Your task to perform on an android device: Do I have any events tomorrow? Image 0: 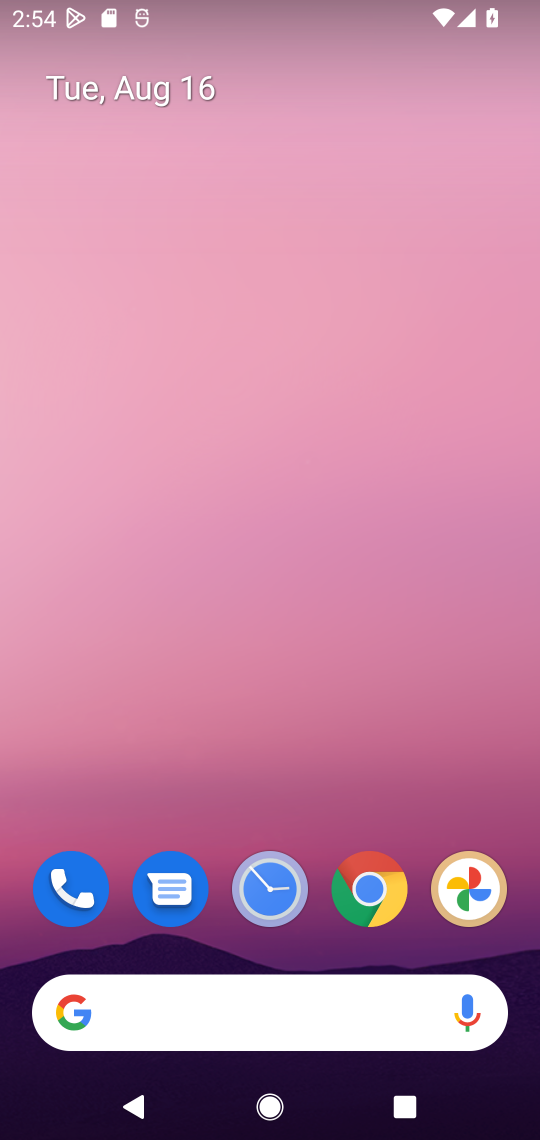
Step 0: drag from (379, 689) to (350, 22)
Your task to perform on an android device: Do I have any events tomorrow? Image 1: 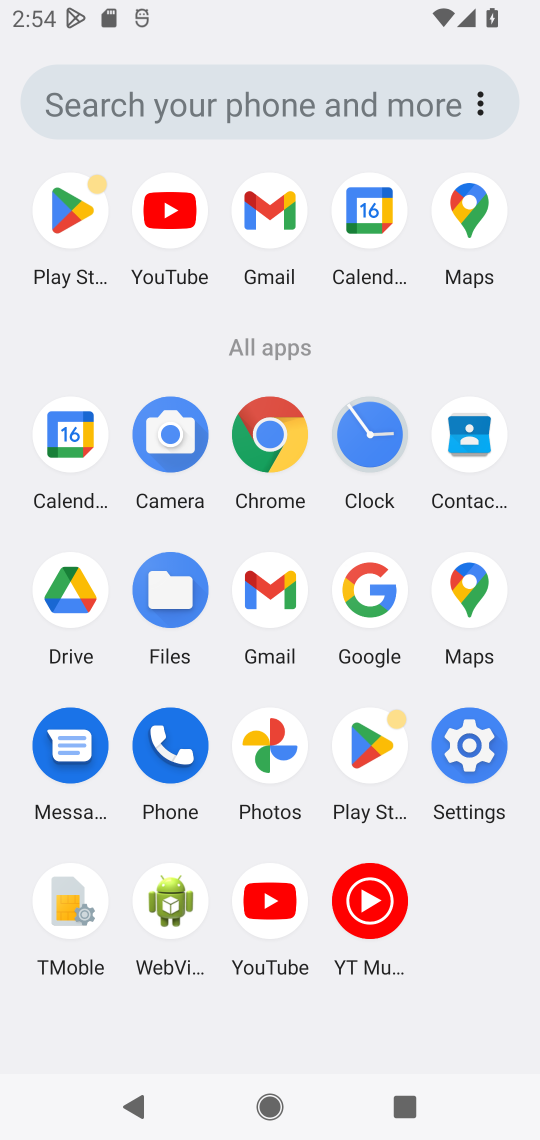
Step 1: click (358, 202)
Your task to perform on an android device: Do I have any events tomorrow? Image 2: 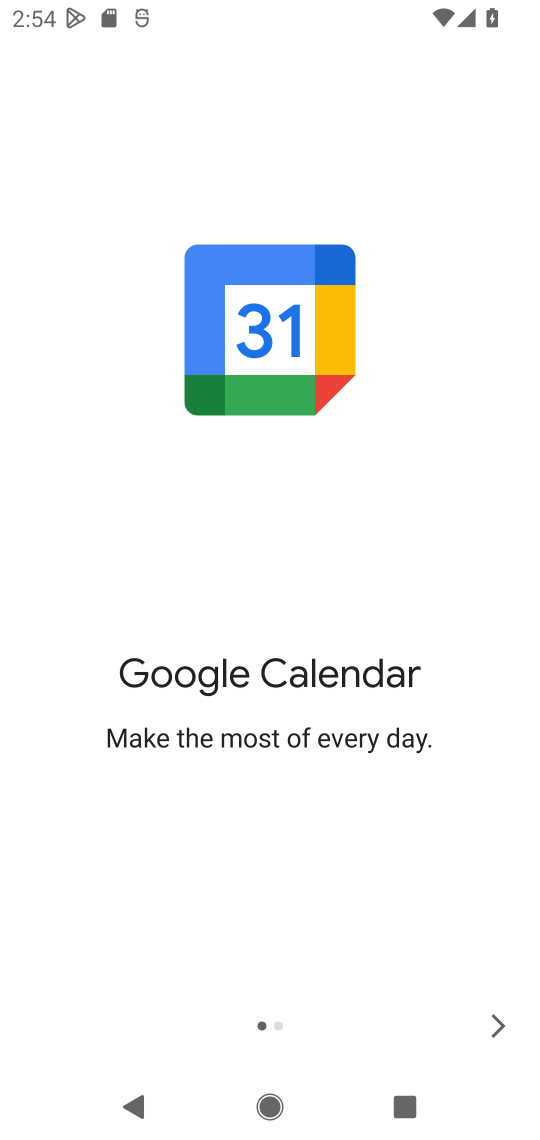
Step 2: click (496, 1017)
Your task to perform on an android device: Do I have any events tomorrow? Image 3: 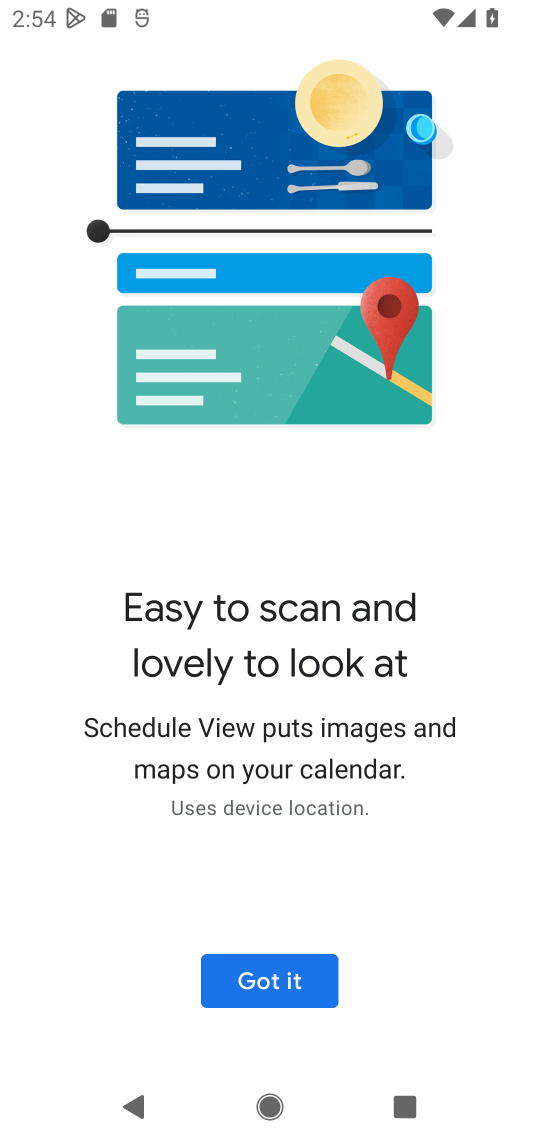
Step 3: click (496, 1017)
Your task to perform on an android device: Do I have any events tomorrow? Image 4: 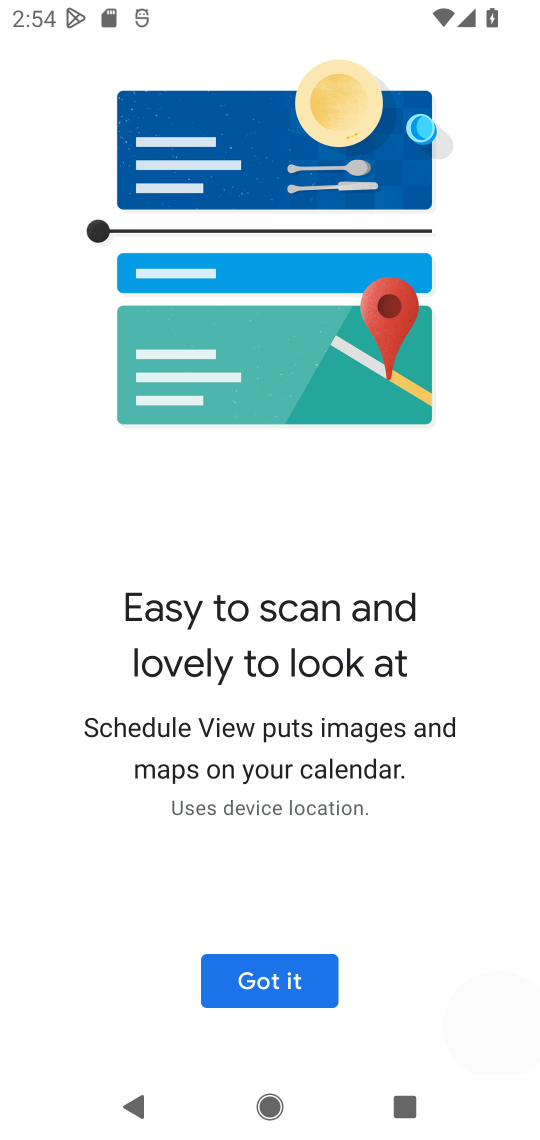
Step 4: click (235, 977)
Your task to perform on an android device: Do I have any events tomorrow? Image 5: 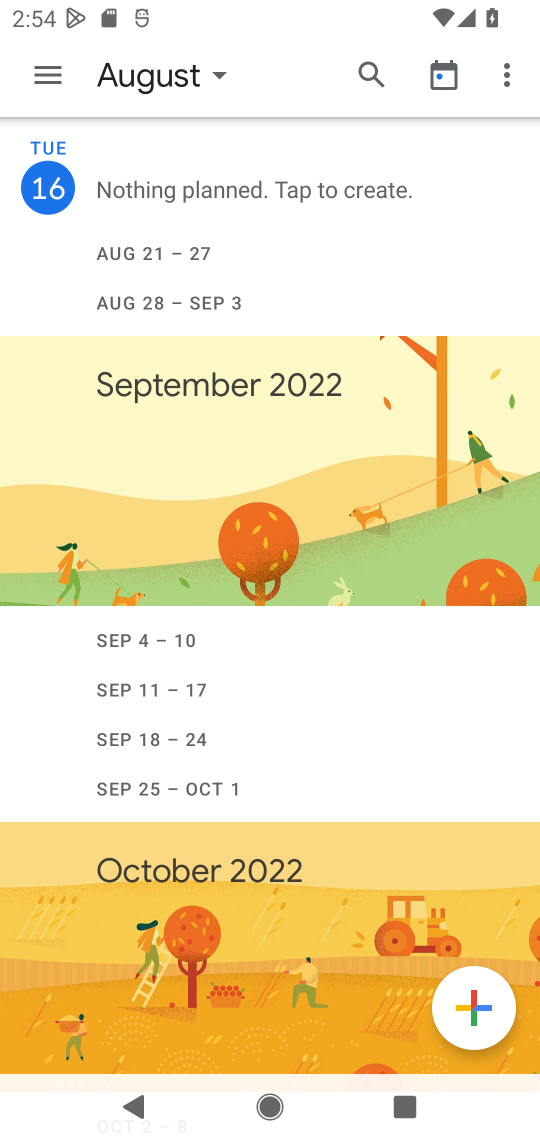
Step 5: task complete